Your task to perform on an android device: change notification settings in the gmail app Image 0: 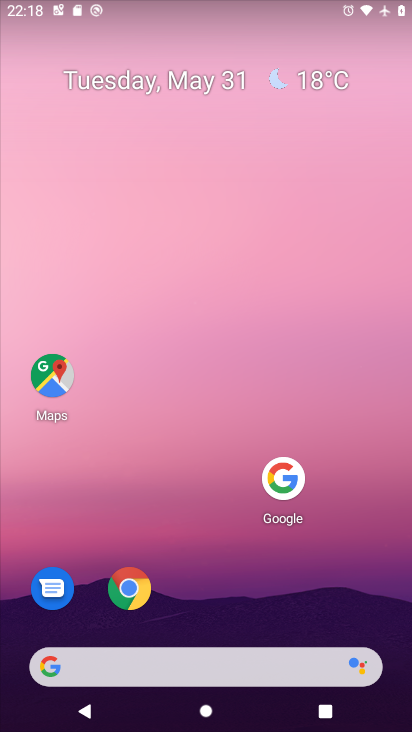
Step 0: press home button
Your task to perform on an android device: change notification settings in the gmail app Image 1: 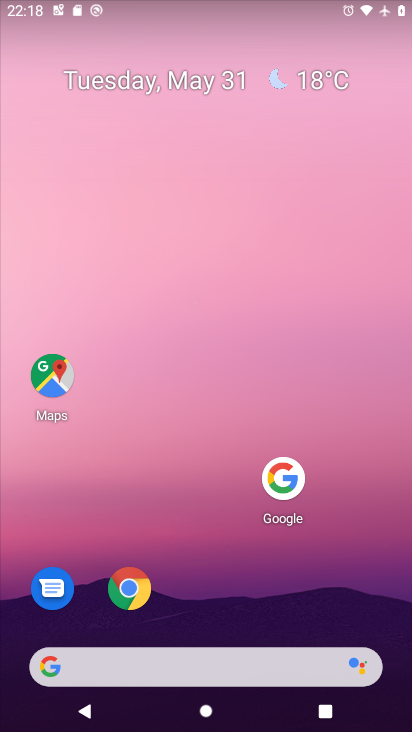
Step 1: drag from (169, 668) to (288, 117)
Your task to perform on an android device: change notification settings in the gmail app Image 2: 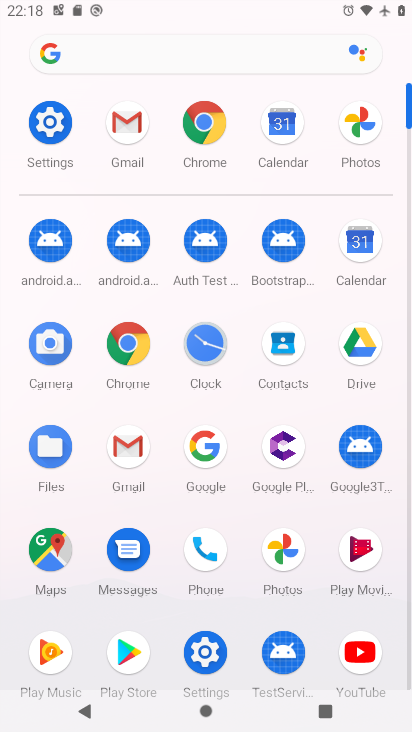
Step 2: click (123, 129)
Your task to perform on an android device: change notification settings in the gmail app Image 3: 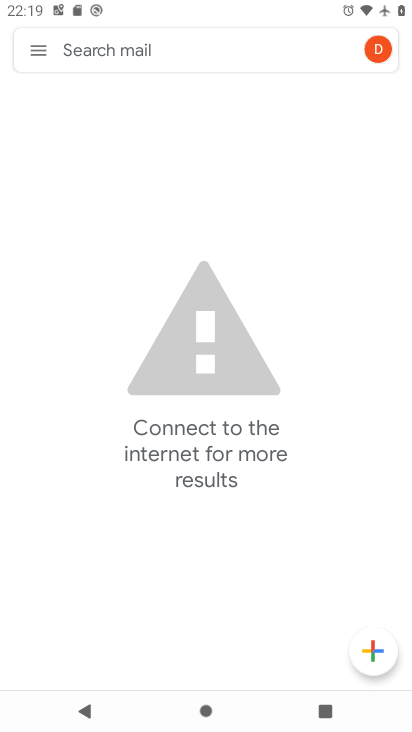
Step 3: drag from (216, 145) to (184, 564)
Your task to perform on an android device: change notification settings in the gmail app Image 4: 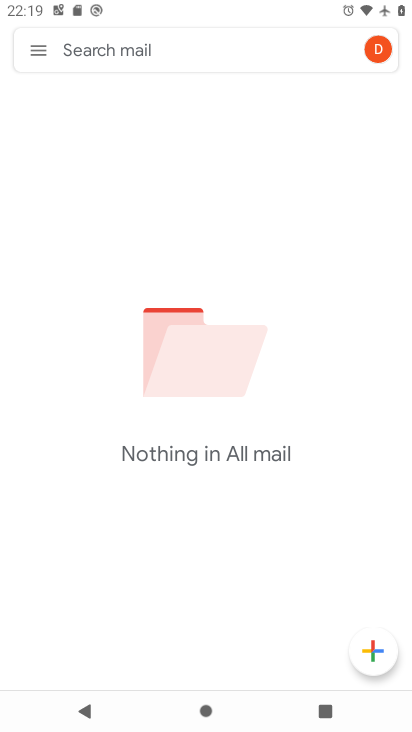
Step 4: click (37, 43)
Your task to perform on an android device: change notification settings in the gmail app Image 5: 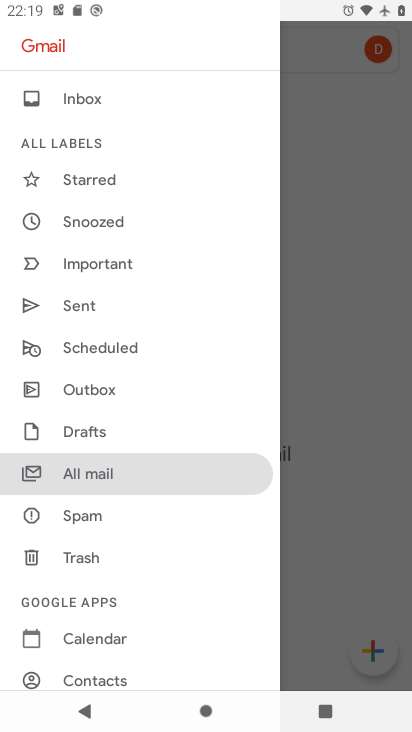
Step 5: drag from (125, 613) to (222, 173)
Your task to perform on an android device: change notification settings in the gmail app Image 6: 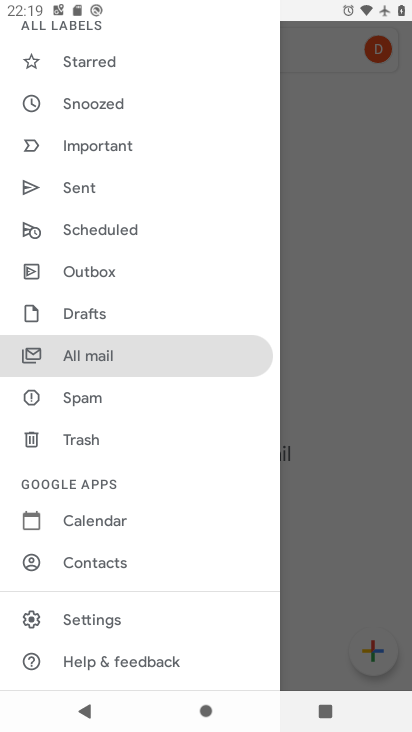
Step 6: click (104, 619)
Your task to perform on an android device: change notification settings in the gmail app Image 7: 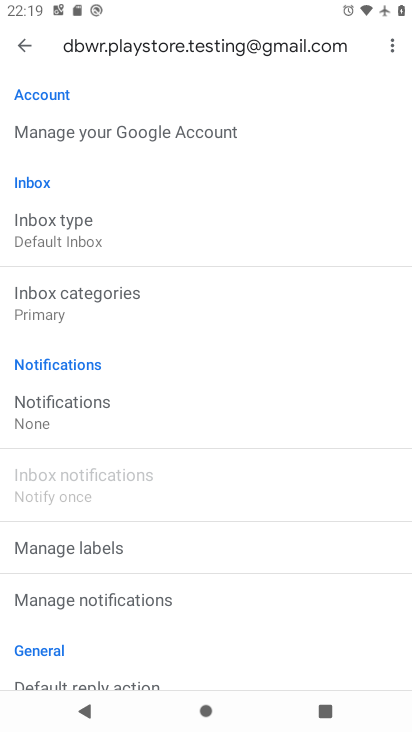
Step 7: click (44, 414)
Your task to perform on an android device: change notification settings in the gmail app Image 8: 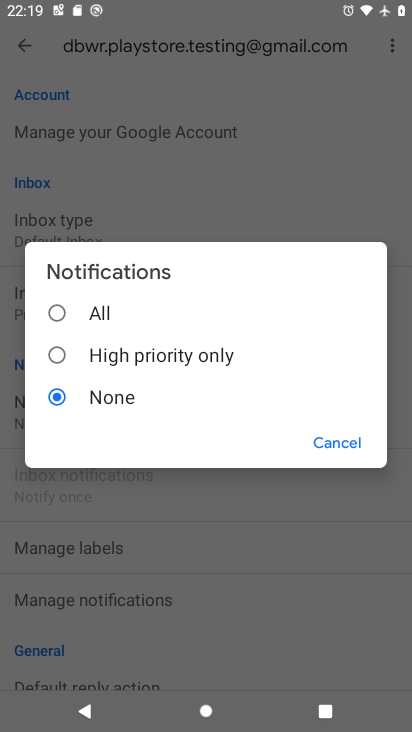
Step 8: click (58, 313)
Your task to perform on an android device: change notification settings in the gmail app Image 9: 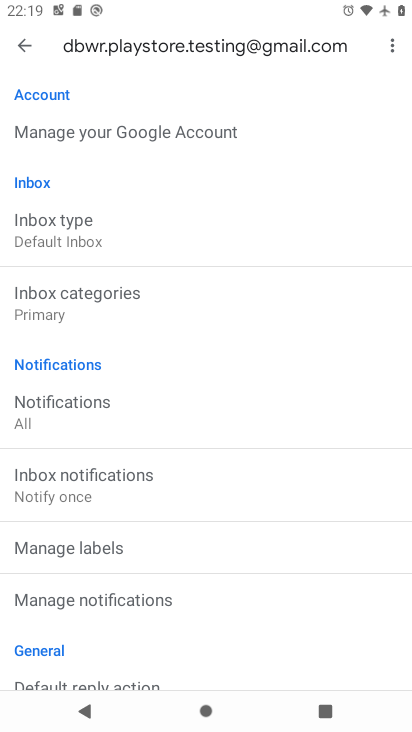
Step 9: task complete